Your task to perform on an android device: Show me popular games on the Play Store Image 0: 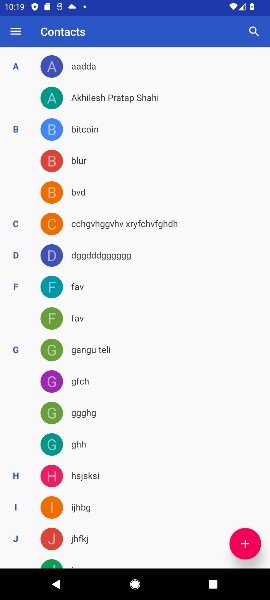
Step 0: press home button
Your task to perform on an android device: Show me popular games on the Play Store Image 1: 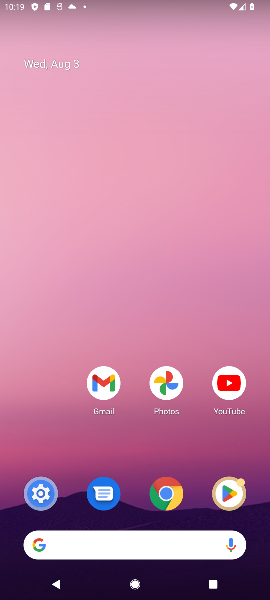
Step 1: click (226, 492)
Your task to perform on an android device: Show me popular games on the Play Store Image 2: 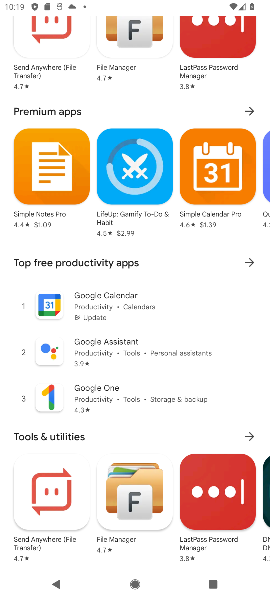
Step 2: drag from (145, 95) to (171, 479)
Your task to perform on an android device: Show me popular games on the Play Store Image 3: 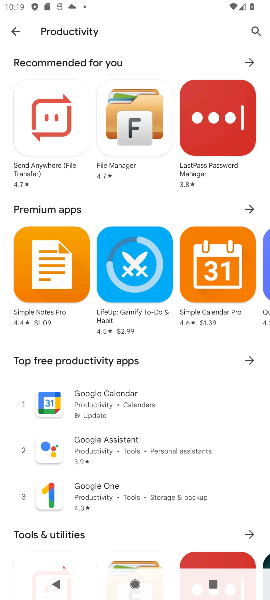
Step 3: click (11, 36)
Your task to perform on an android device: Show me popular games on the Play Store Image 4: 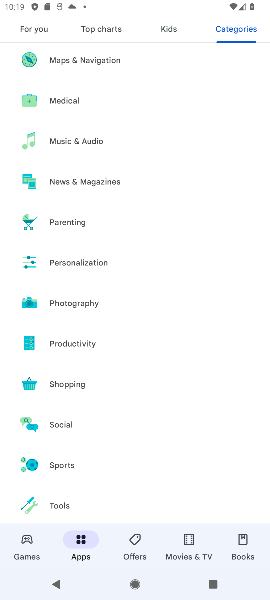
Step 4: click (20, 539)
Your task to perform on an android device: Show me popular games on the Play Store Image 5: 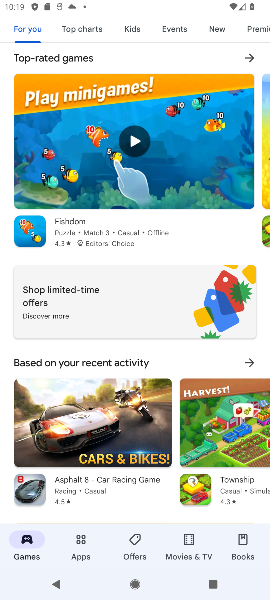
Step 5: task complete